Your task to perform on an android device: change timer sound Image 0: 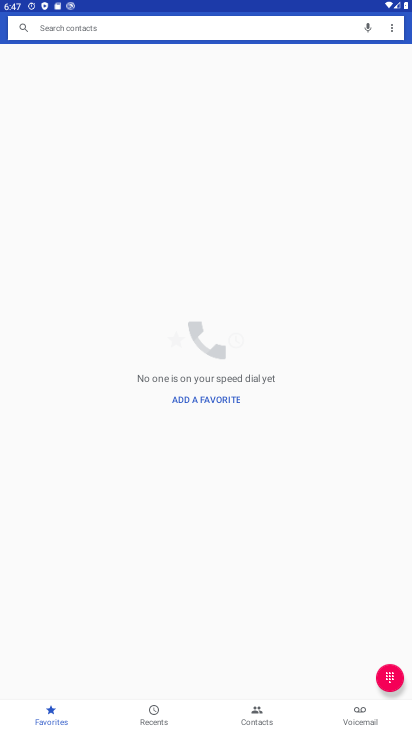
Step 0: press home button
Your task to perform on an android device: change timer sound Image 1: 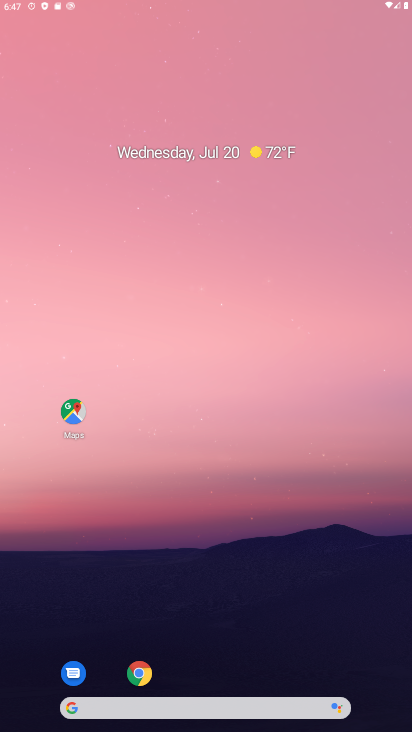
Step 1: drag from (398, 666) to (268, 54)
Your task to perform on an android device: change timer sound Image 2: 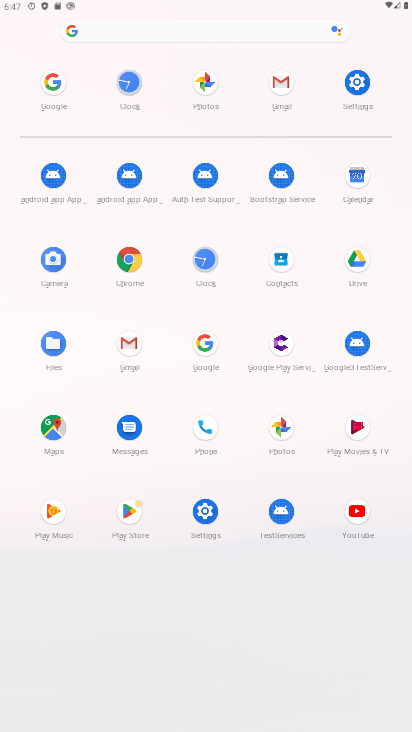
Step 2: click (205, 258)
Your task to perform on an android device: change timer sound Image 3: 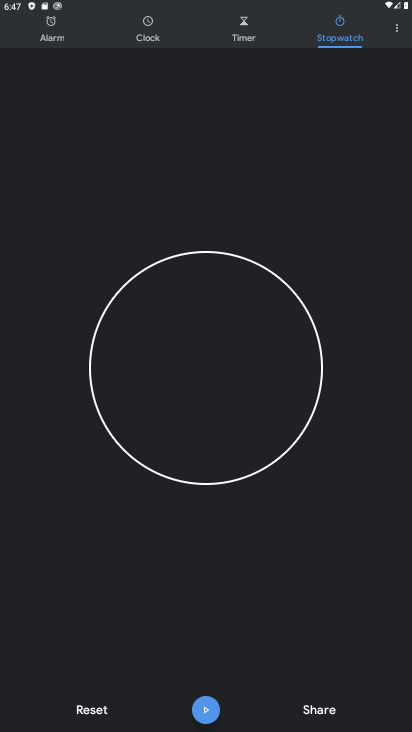
Step 3: click (395, 29)
Your task to perform on an android device: change timer sound Image 4: 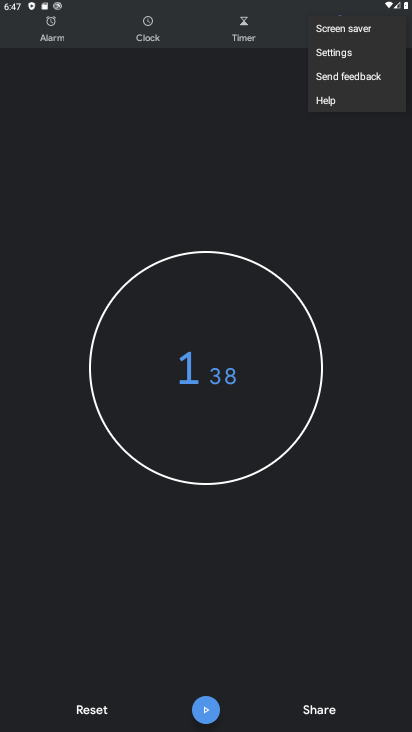
Step 4: click (363, 59)
Your task to perform on an android device: change timer sound Image 5: 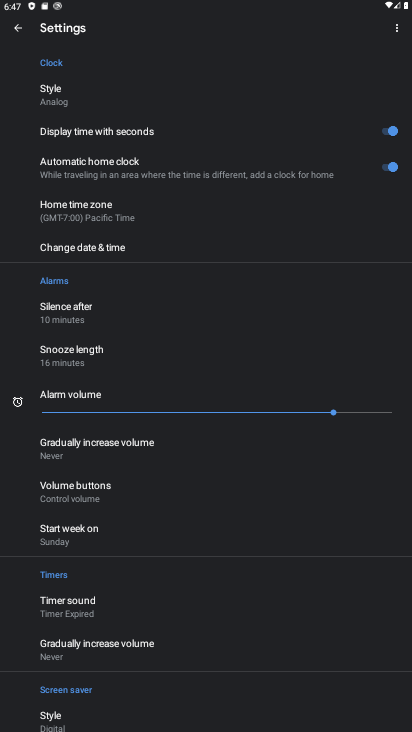
Step 5: click (100, 614)
Your task to perform on an android device: change timer sound Image 6: 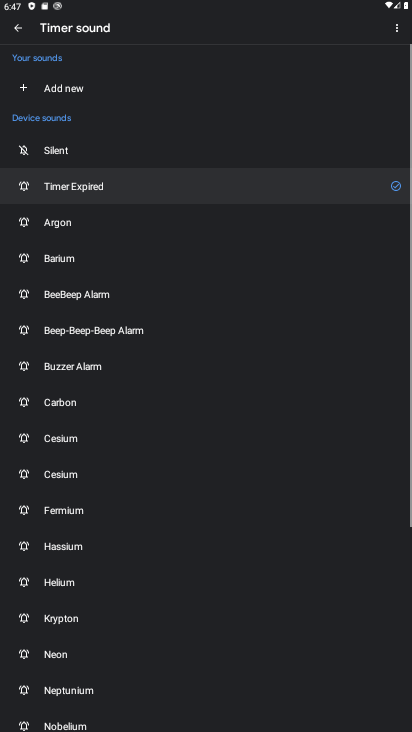
Step 6: click (93, 330)
Your task to perform on an android device: change timer sound Image 7: 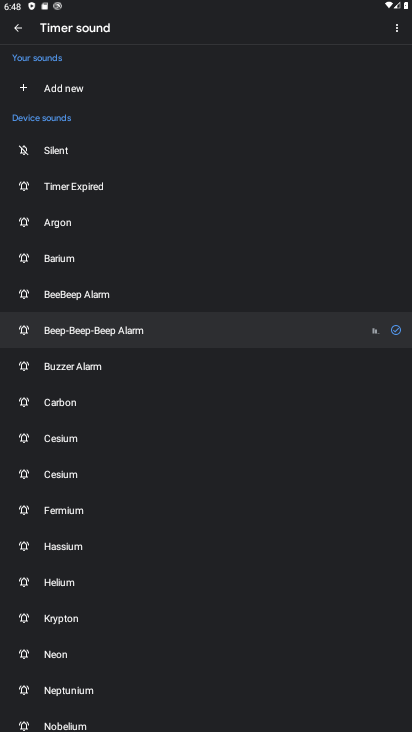
Step 7: task complete